Your task to perform on an android device: see sites visited before in the chrome app Image 0: 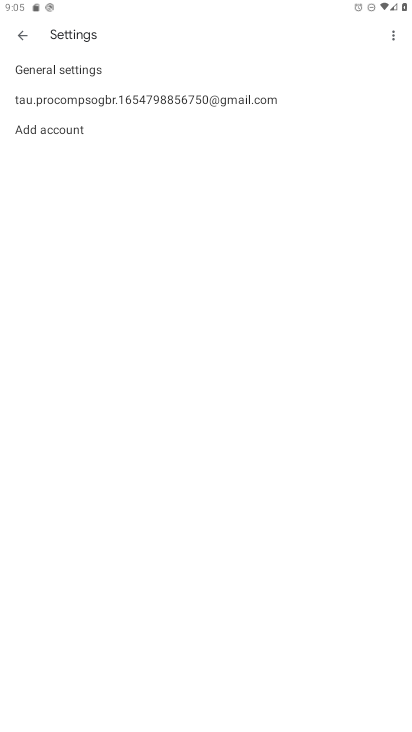
Step 0: press home button
Your task to perform on an android device: see sites visited before in the chrome app Image 1: 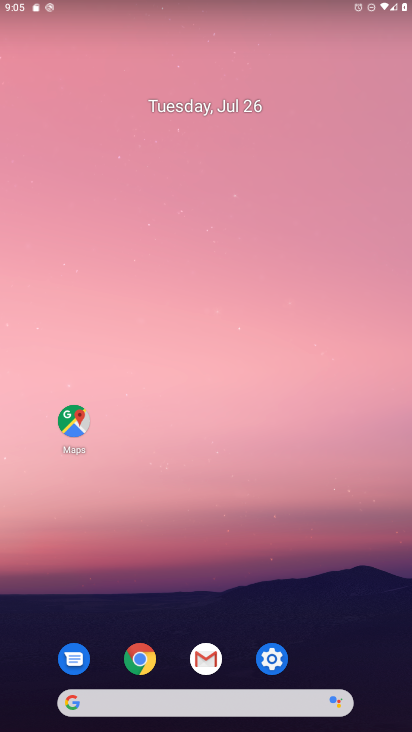
Step 1: click (147, 664)
Your task to perform on an android device: see sites visited before in the chrome app Image 2: 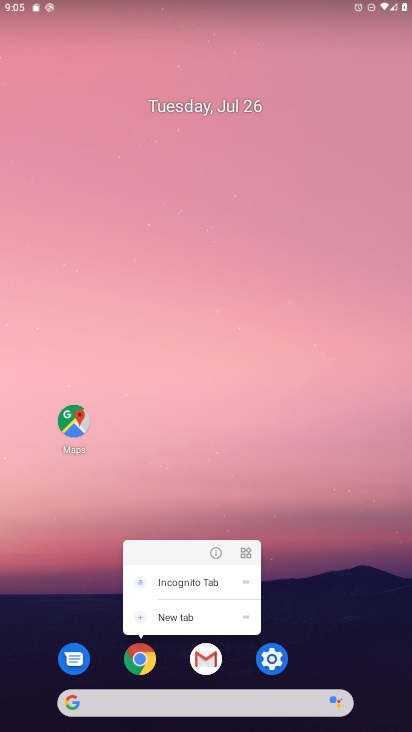
Step 2: click (146, 664)
Your task to perform on an android device: see sites visited before in the chrome app Image 3: 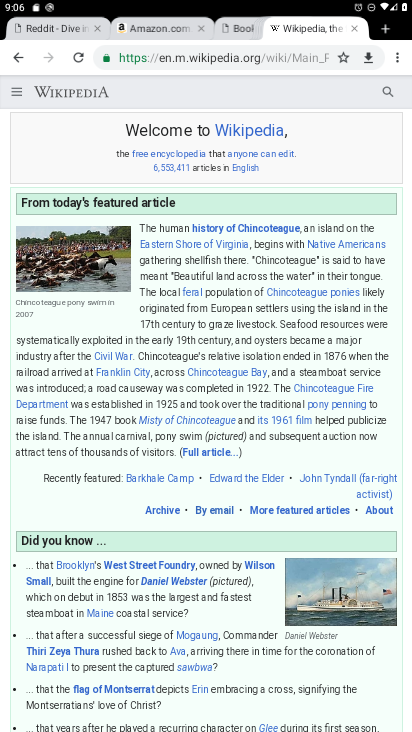
Step 3: click (393, 63)
Your task to perform on an android device: see sites visited before in the chrome app Image 4: 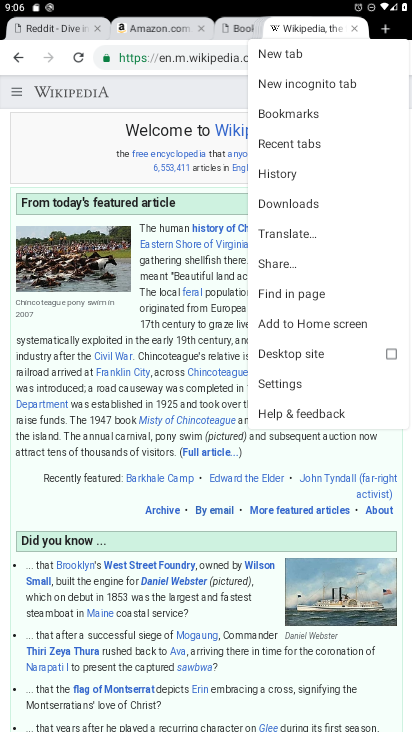
Step 4: click (287, 376)
Your task to perform on an android device: see sites visited before in the chrome app Image 5: 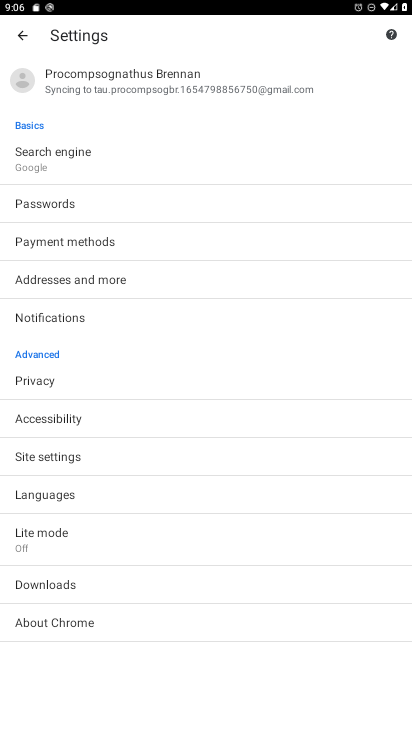
Step 5: click (77, 455)
Your task to perform on an android device: see sites visited before in the chrome app Image 6: 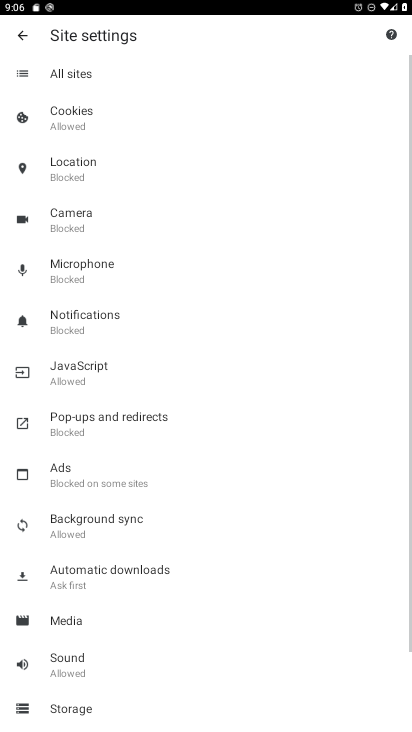
Step 6: click (128, 71)
Your task to perform on an android device: see sites visited before in the chrome app Image 7: 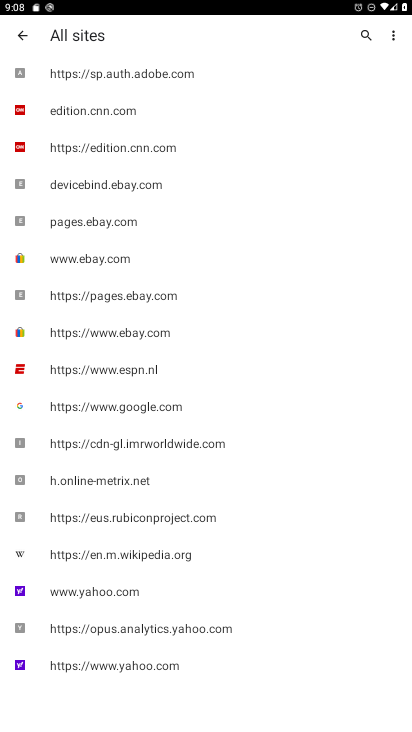
Step 7: task complete